Your task to perform on an android device: Go to Amazon Image 0: 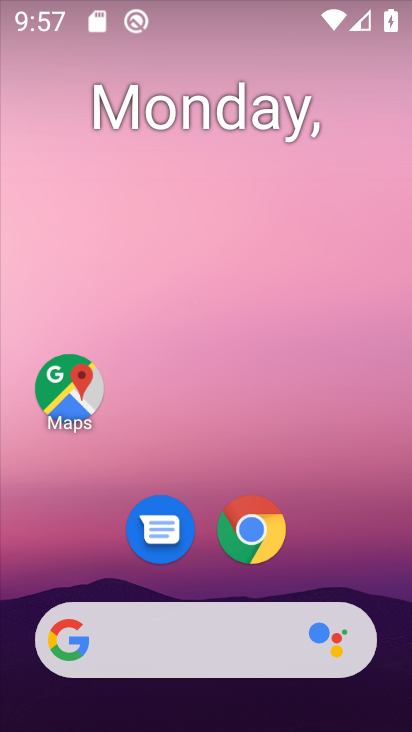
Step 0: drag from (211, 486) to (206, 51)
Your task to perform on an android device: Go to Amazon Image 1: 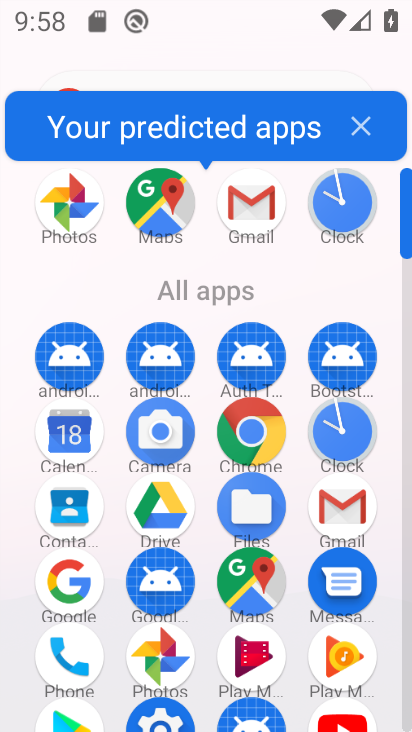
Step 1: click (249, 447)
Your task to perform on an android device: Go to Amazon Image 2: 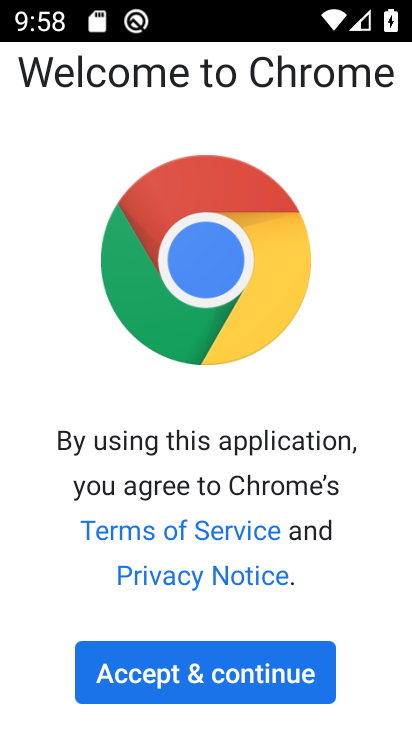
Step 2: click (233, 657)
Your task to perform on an android device: Go to Amazon Image 3: 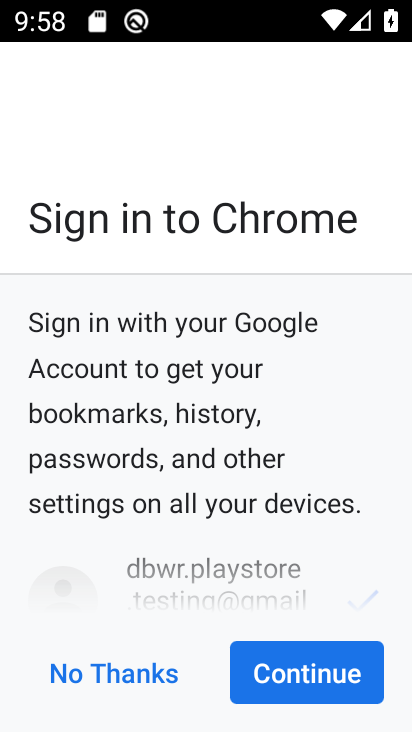
Step 3: click (312, 682)
Your task to perform on an android device: Go to Amazon Image 4: 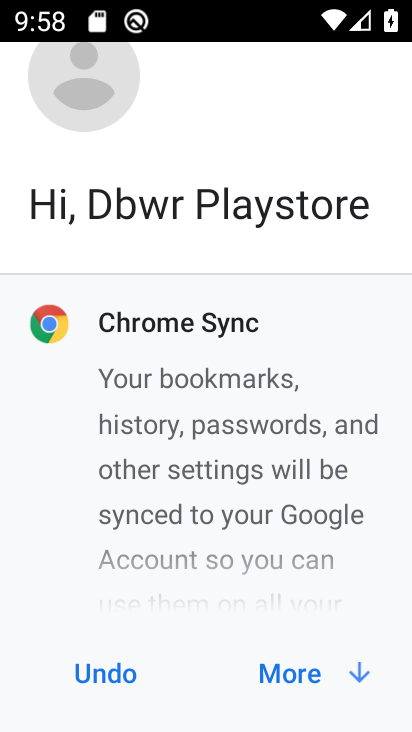
Step 4: click (312, 682)
Your task to perform on an android device: Go to Amazon Image 5: 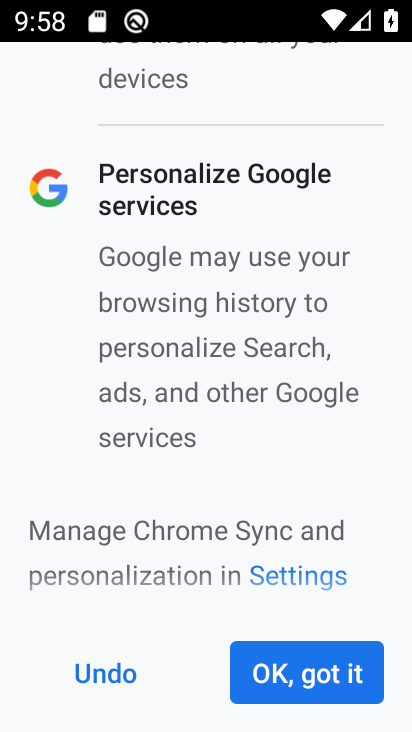
Step 5: click (312, 682)
Your task to perform on an android device: Go to Amazon Image 6: 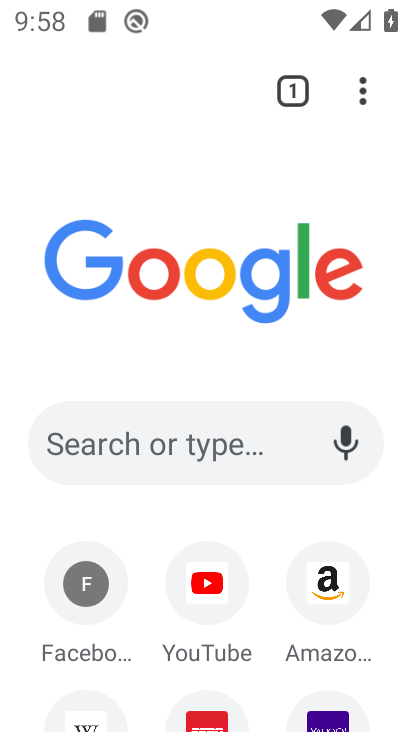
Step 6: click (333, 611)
Your task to perform on an android device: Go to Amazon Image 7: 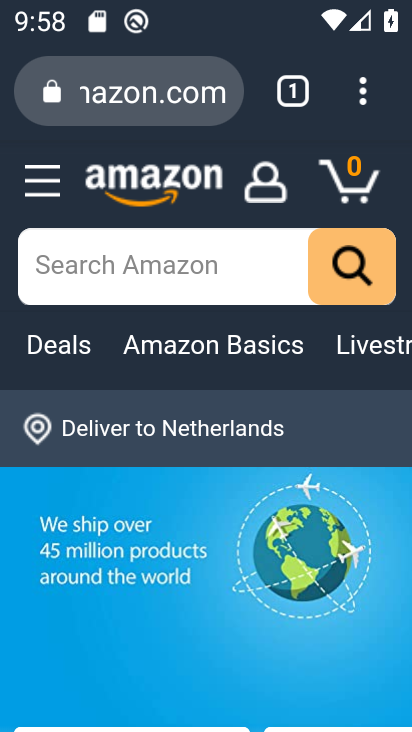
Step 7: task complete